Your task to perform on an android device: refresh tabs in the chrome app Image 0: 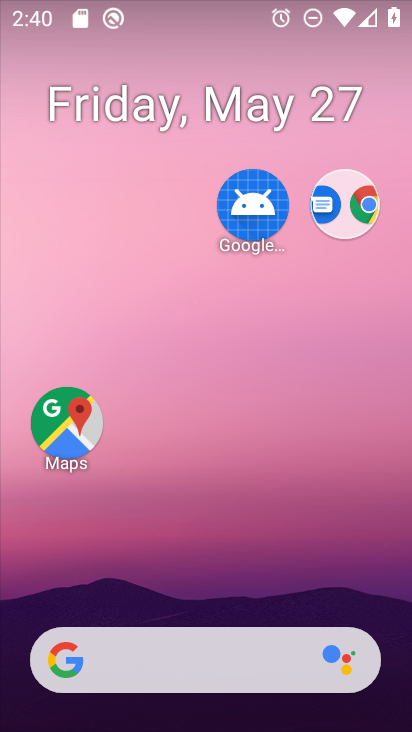
Step 0: drag from (191, 613) to (241, 150)
Your task to perform on an android device: refresh tabs in the chrome app Image 1: 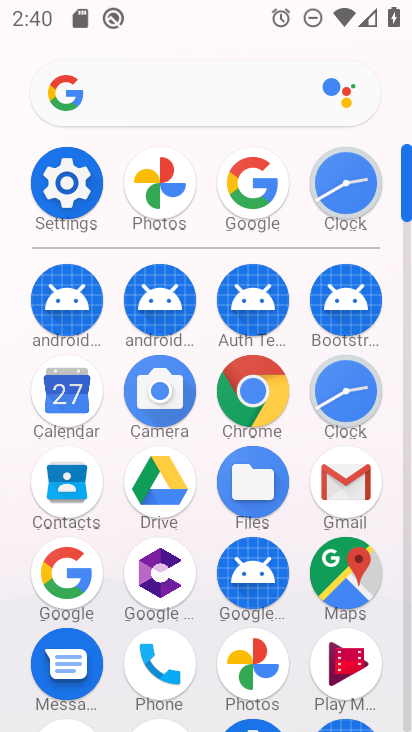
Step 1: click (248, 394)
Your task to perform on an android device: refresh tabs in the chrome app Image 2: 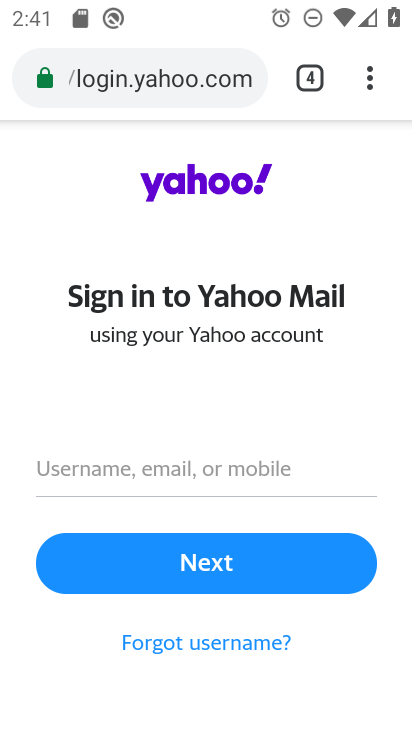
Step 2: click (376, 82)
Your task to perform on an android device: refresh tabs in the chrome app Image 3: 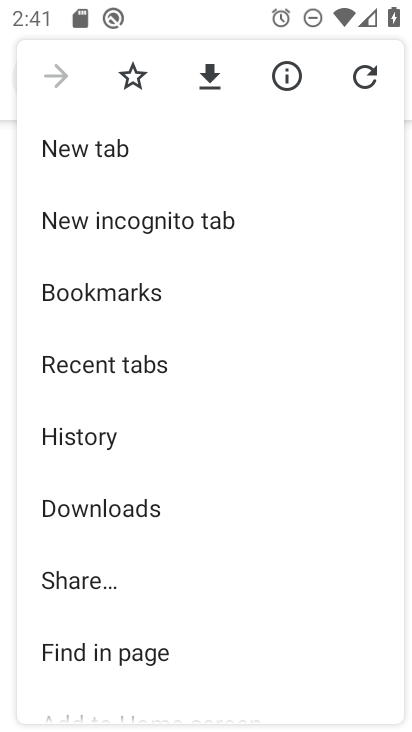
Step 3: drag from (210, 540) to (234, 343)
Your task to perform on an android device: refresh tabs in the chrome app Image 4: 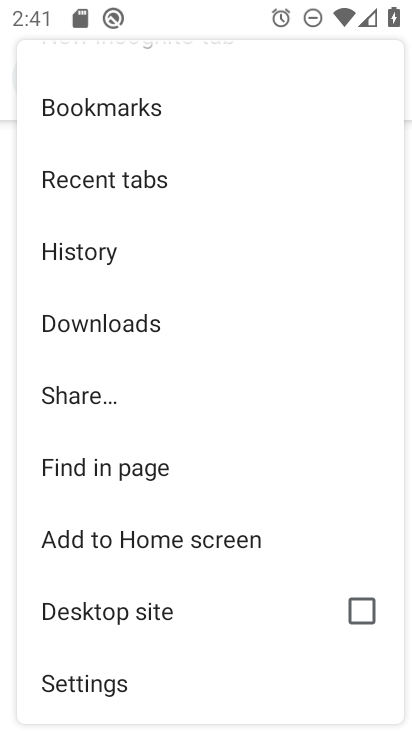
Step 4: drag from (346, 244) to (283, 591)
Your task to perform on an android device: refresh tabs in the chrome app Image 5: 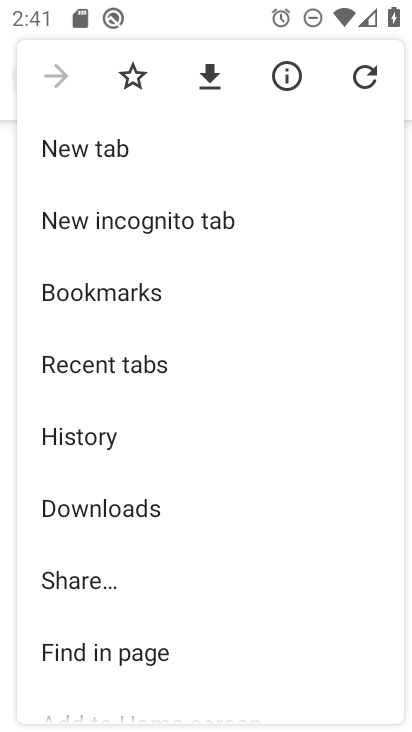
Step 5: click (372, 78)
Your task to perform on an android device: refresh tabs in the chrome app Image 6: 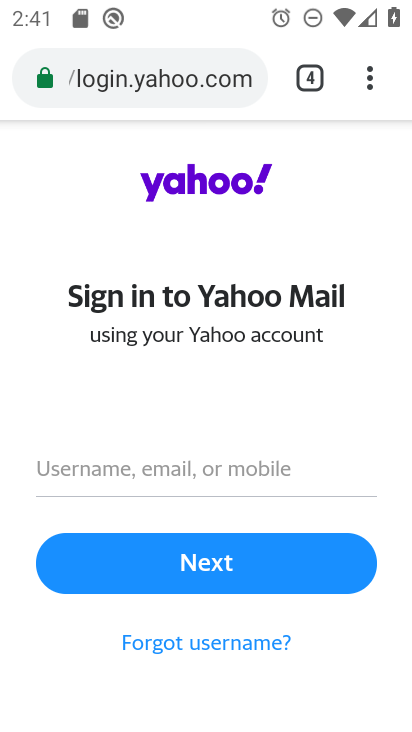
Step 6: task complete